Your task to perform on an android device: star an email in the gmail app Image 0: 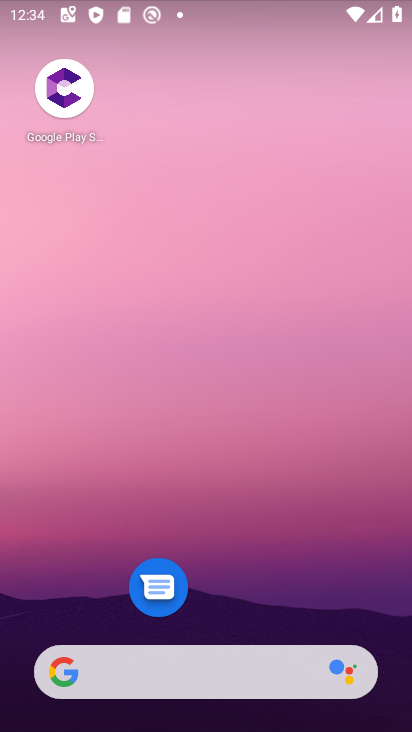
Step 0: drag from (287, 623) to (207, 175)
Your task to perform on an android device: star an email in the gmail app Image 1: 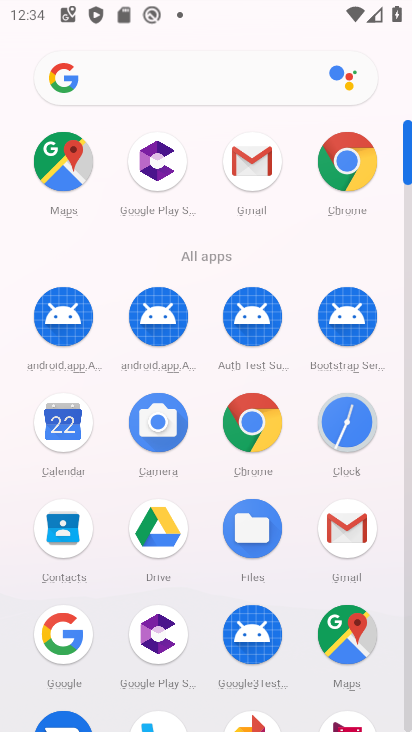
Step 1: click (339, 537)
Your task to perform on an android device: star an email in the gmail app Image 2: 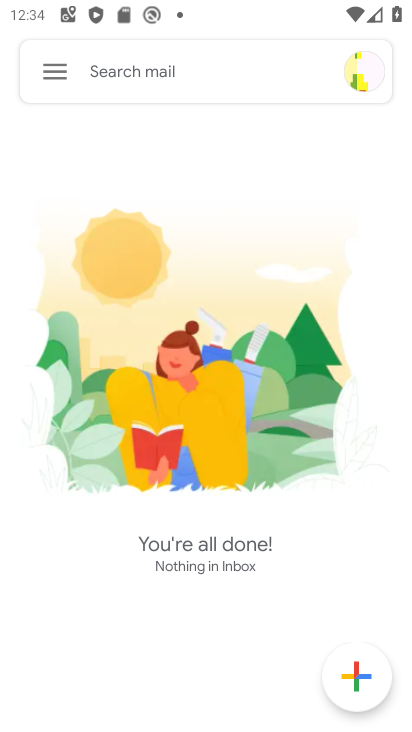
Step 2: task complete